Your task to perform on an android device: Open Youtube and go to "Your channel" Image 0: 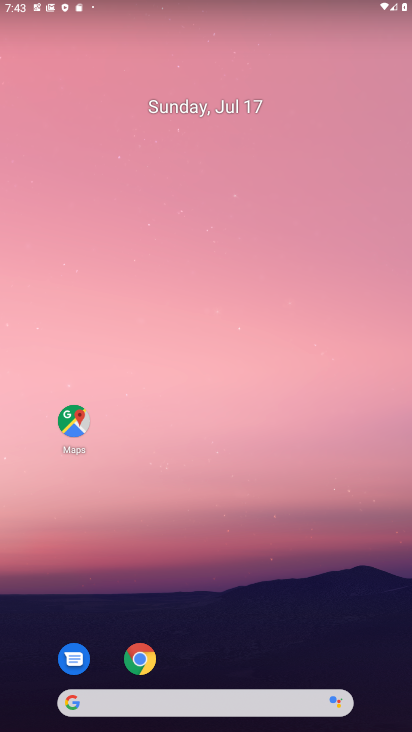
Step 0: drag from (222, 646) to (230, 142)
Your task to perform on an android device: Open Youtube and go to "Your channel" Image 1: 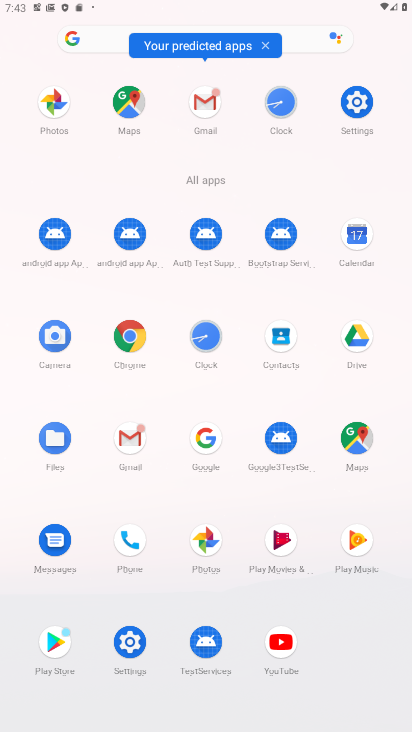
Step 1: click (271, 646)
Your task to perform on an android device: Open Youtube and go to "Your channel" Image 2: 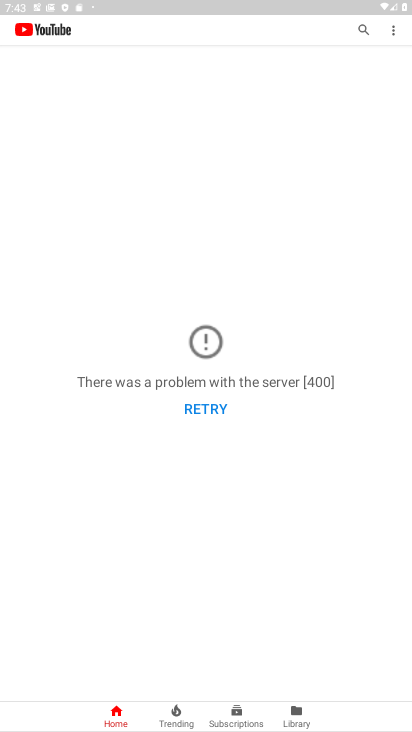
Step 2: click (394, 32)
Your task to perform on an android device: Open Youtube and go to "Your channel" Image 3: 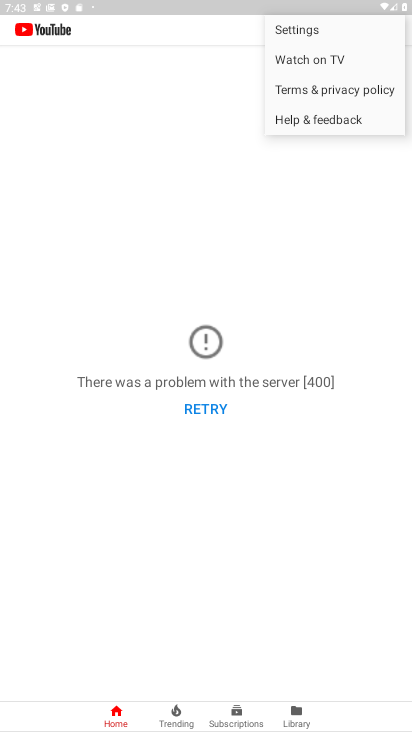
Step 3: click (375, 341)
Your task to perform on an android device: Open Youtube and go to "Your channel" Image 4: 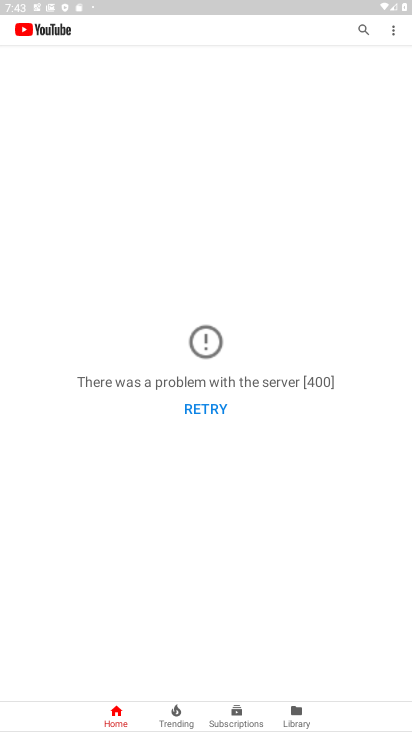
Step 4: click (395, 30)
Your task to perform on an android device: Open Youtube and go to "Your channel" Image 5: 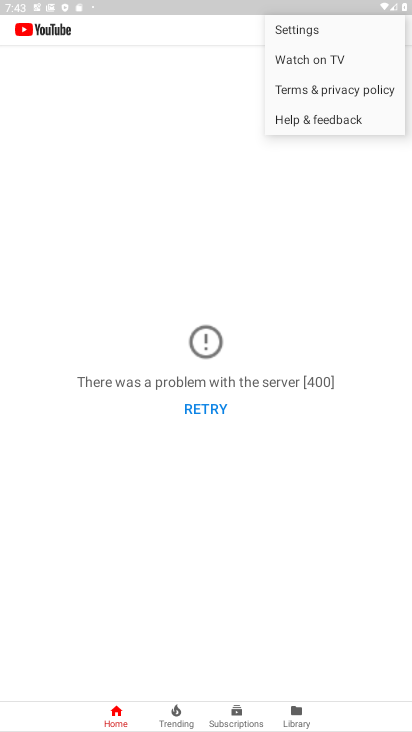
Step 5: click (13, 18)
Your task to perform on an android device: Open Youtube and go to "Your channel" Image 6: 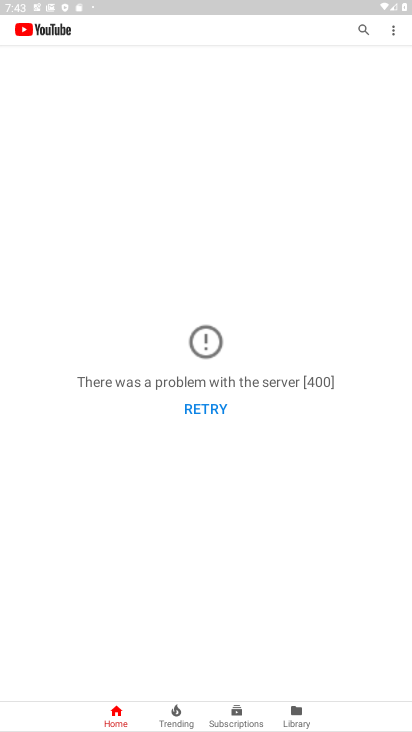
Step 6: click (34, 23)
Your task to perform on an android device: Open Youtube and go to "Your channel" Image 7: 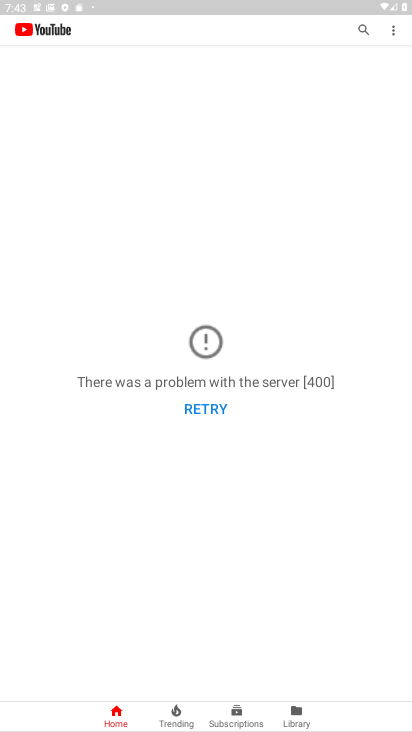
Step 7: click (20, 31)
Your task to perform on an android device: Open Youtube and go to "Your channel" Image 8: 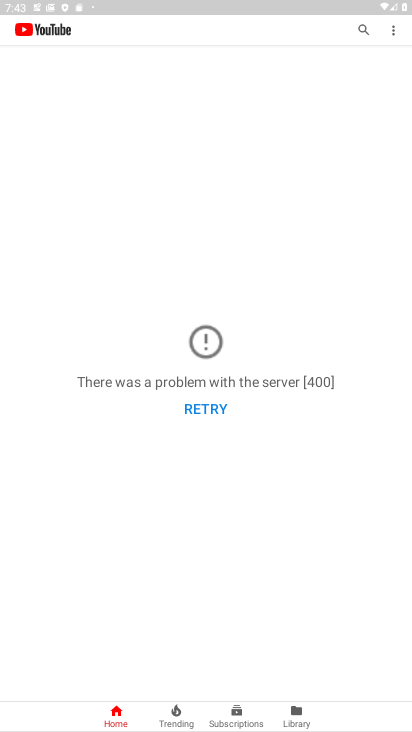
Step 8: click (290, 717)
Your task to perform on an android device: Open Youtube and go to "Your channel" Image 9: 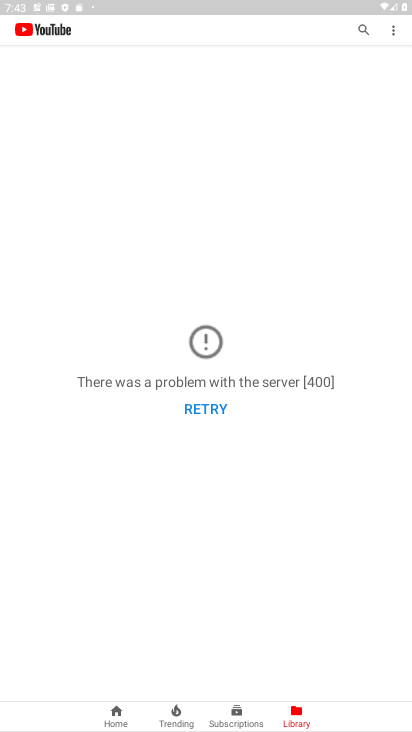
Step 9: task complete